Your task to perform on an android device: Is it going to rain this weekend? Image 0: 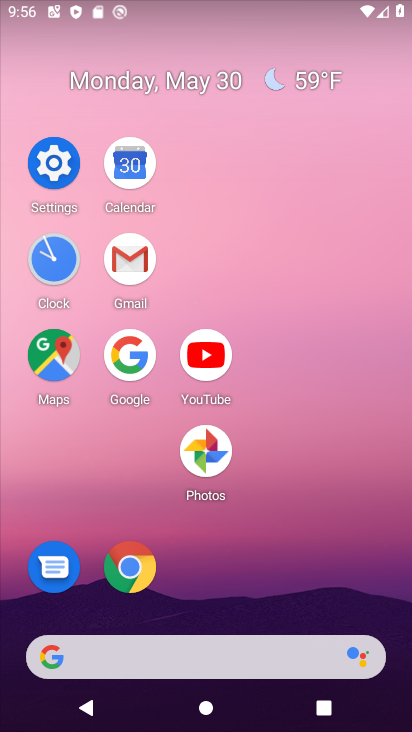
Step 0: click (140, 348)
Your task to perform on an android device: Is it going to rain this weekend? Image 1: 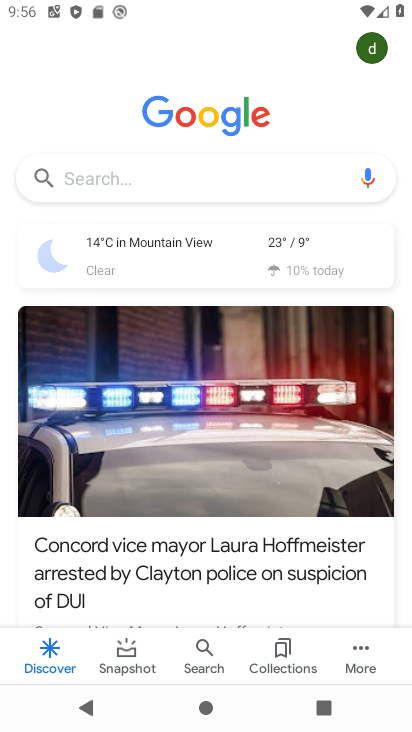
Step 1: click (160, 177)
Your task to perform on an android device: Is it going to rain this weekend? Image 2: 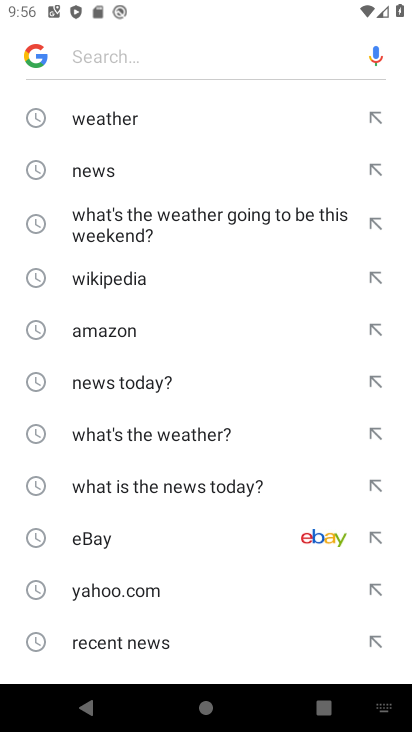
Step 2: click (129, 107)
Your task to perform on an android device: Is it going to rain this weekend? Image 3: 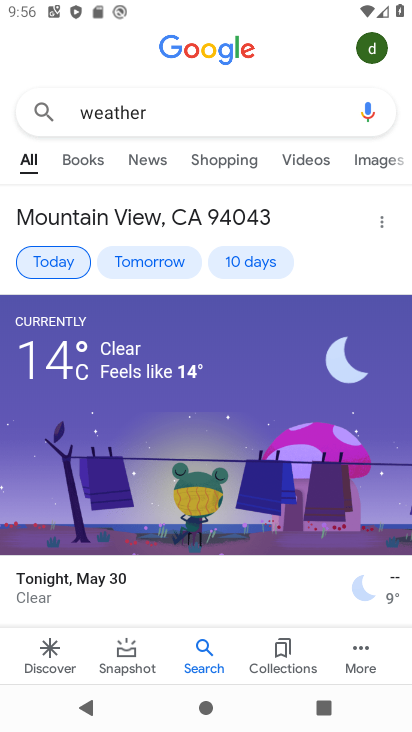
Step 3: click (247, 257)
Your task to perform on an android device: Is it going to rain this weekend? Image 4: 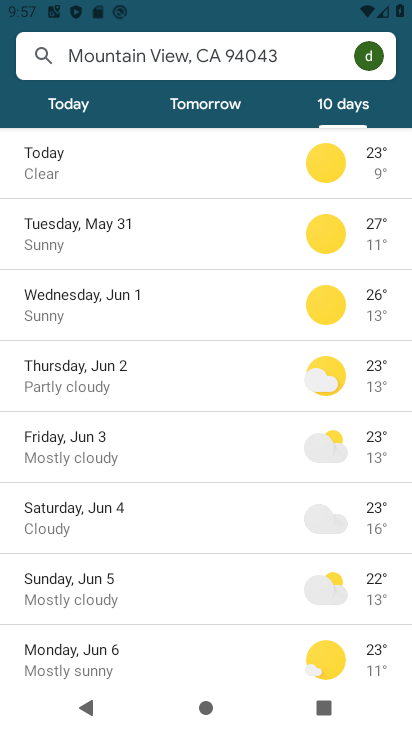
Step 4: click (86, 515)
Your task to perform on an android device: Is it going to rain this weekend? Image 5: 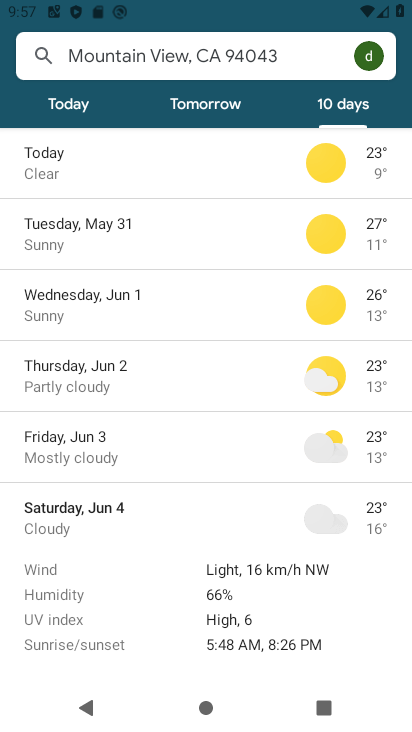
Step 5: task complete